Your task to perform on an android device: change the clock style Image 0: 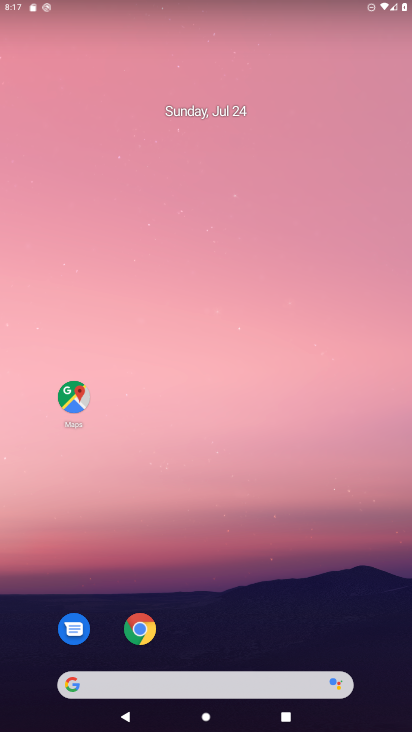
Step 0: drag from (304, 611) to (175, 28)
Your task to perform on an android device: change the clock style Image 1: 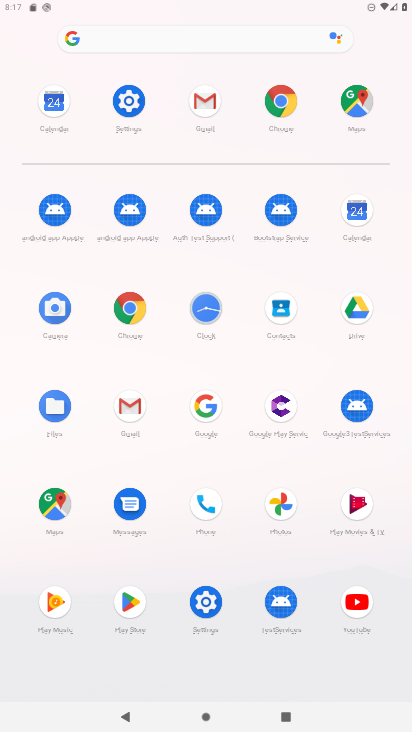
Step 1: click (209, 296)
Your task to perform on an android device: change the clock style Image 2: 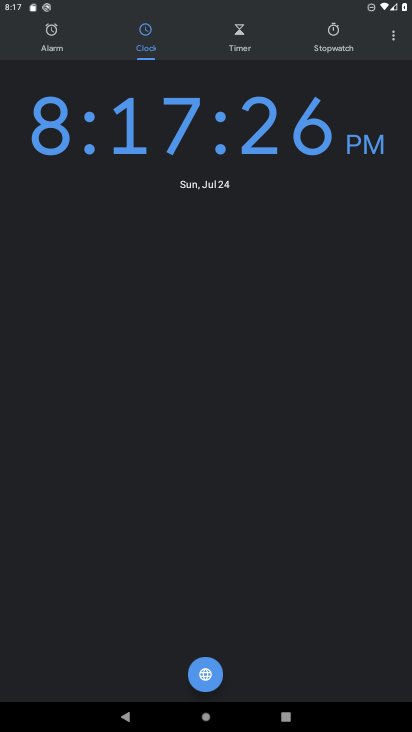
Step 2: click (392, 33)
Your task to perform on an android device: change the clock style Image 3: 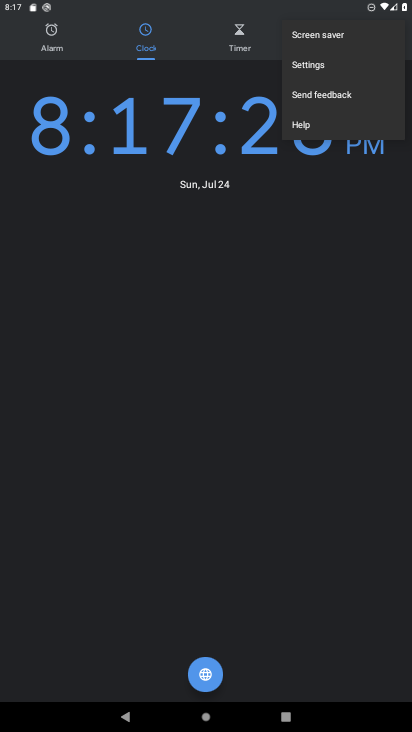
Step 3: click (320, 68)
Your task to perform on an android device: change the clock style Image 4: 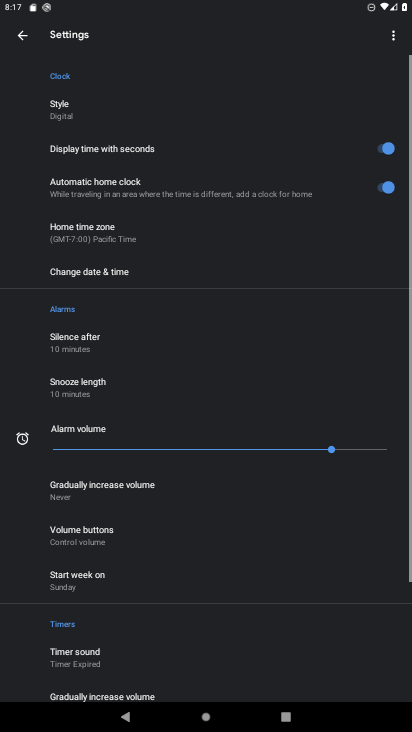
Step 4: click (99, 109)
Your task to perform on an android device: change the clock style Image 5: 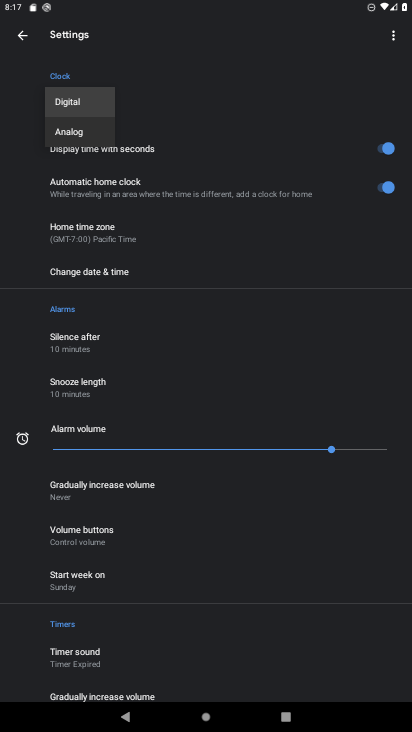
Step 5: click (81, 132)
Your task to perform on an android device: change the clock style Image 6: 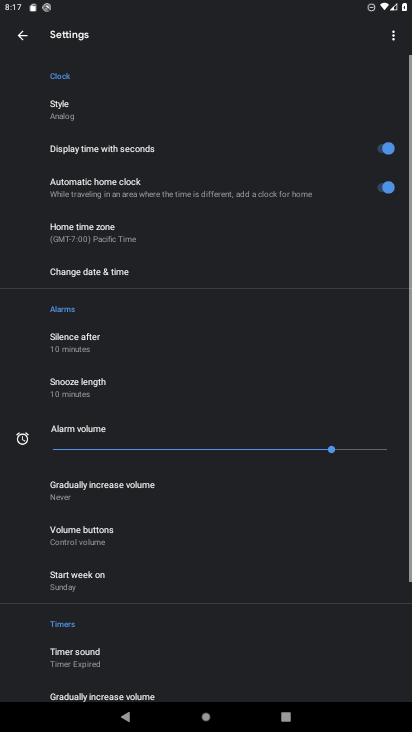
Step 6: task complete